Your task to perform on an android device: Show me productivity apps on the Play Store Image 0: 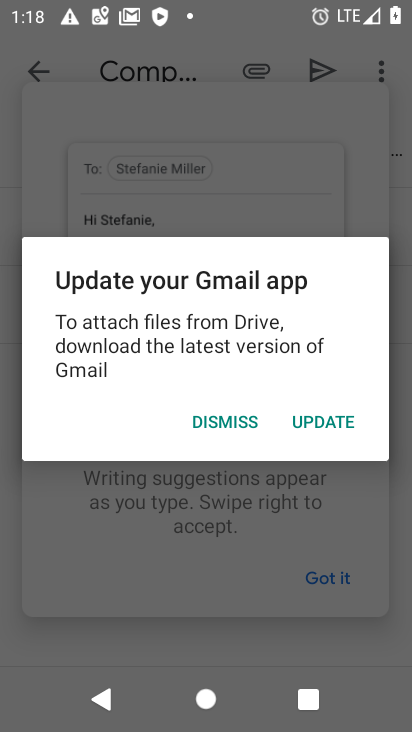
Step 0: press back button
Your task to perform on an android device: Show me productivity apps on the Play Store Image 1: 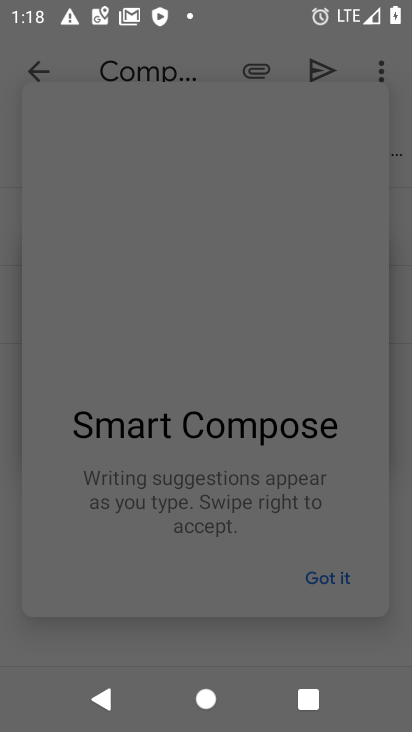
Step 1: press back button
Your task to perform on an android device: Show me productivity apps on the Play Store Image 2: 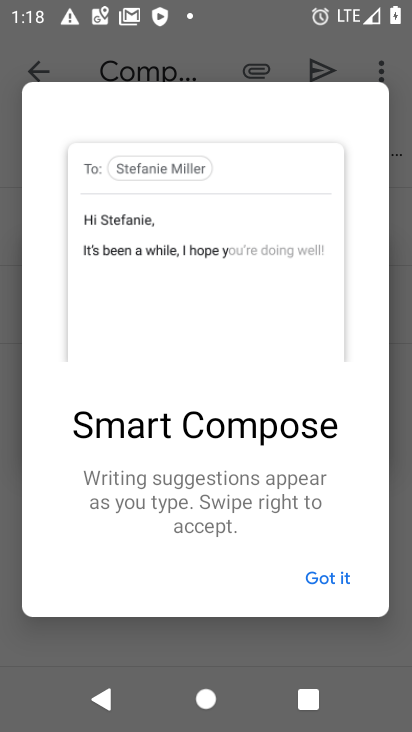
Step 2: press home button
Your task to perform on an android device: Show me productivity apps on the Play Store Image 3: 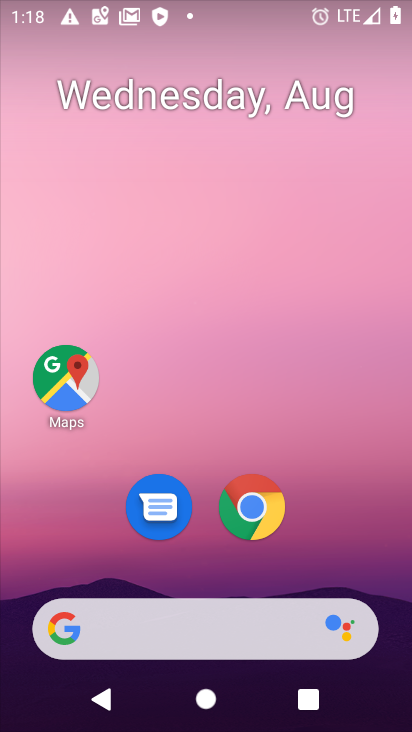
Step 3: drag from (176, 584) to (222, 35)
Your task to perform on an android device: Show me productivity apps on the Play Store Image 4: 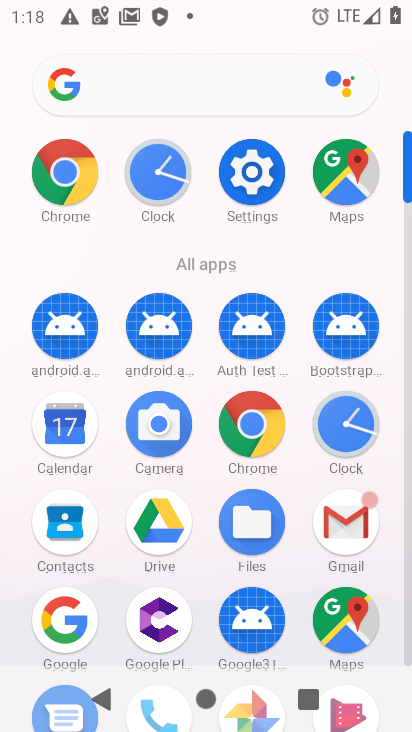
Step 4: drag from (196, 624) to (184, 13)
Your task to perform on an android device: Show me productivity apps on the Play Store Image 5: 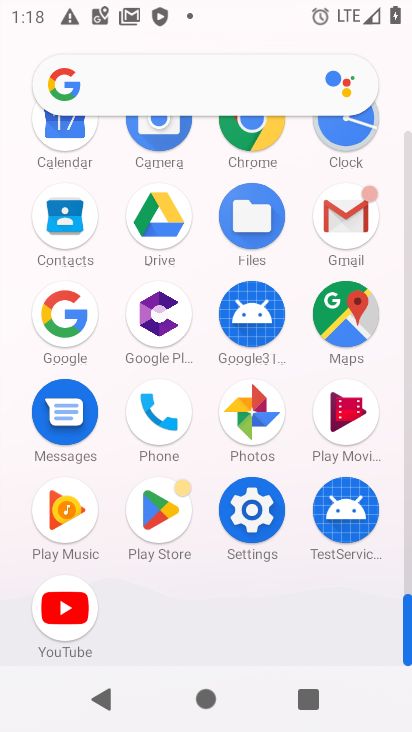
Step 5: click (167, 535)
Your task to perform on an android device: Show me productivity apps on the Play Store Image 6: 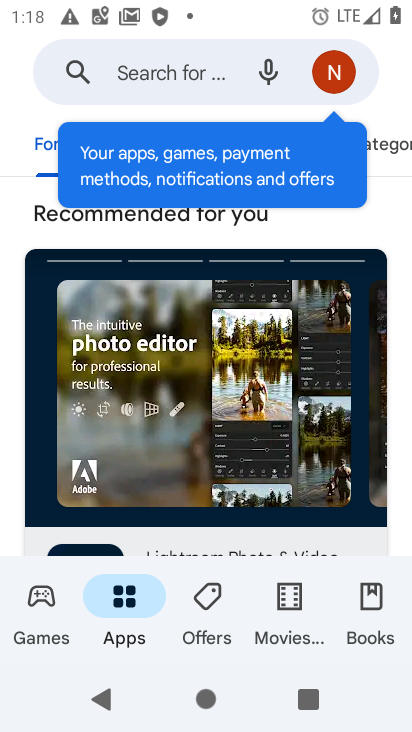
Step 6: click (154, 114)
Your task to perform on an android device: Show me productivity apps on the Play Store Image 7: 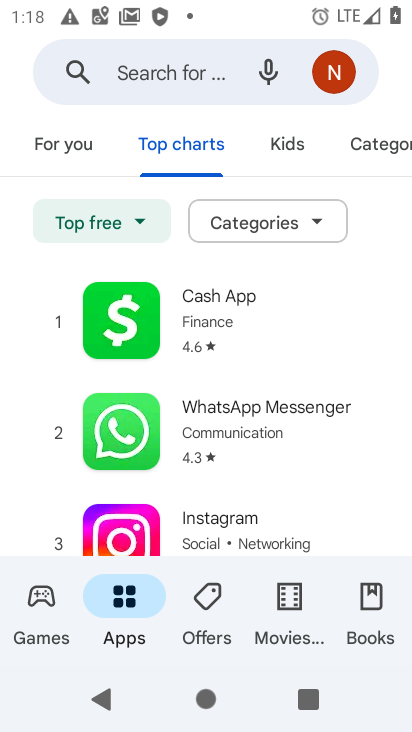
Step 7: click (382, 149)
Your task to perform on an android device: Show me productivity apps on the Play Store Image 8: 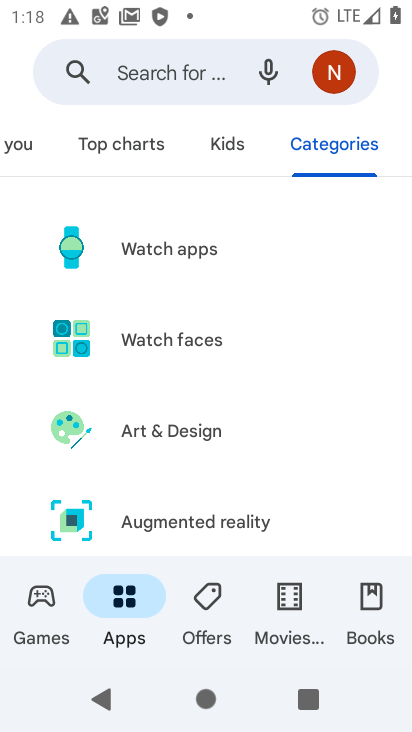
Step 8: drag from (312, 560) to (254, 36)
Your task to perform on an android device: Show me productivity apps on the Play Store Image 9: 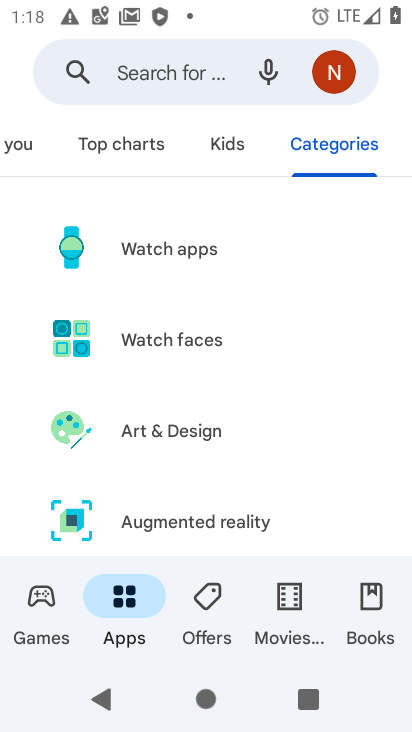
Step 9: drag from (192, 409) to (149, 35)
Your task to perform on an android device: Show me productivity apps on the Play Store Image 10: 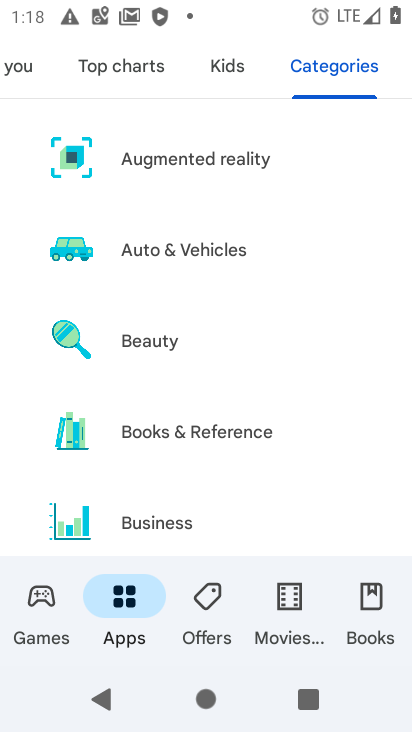
Step 10: drag from (129, 407) to (129, 18)
Your task to perform on an android device: Show me productivity apps on the Play Store Image 11: 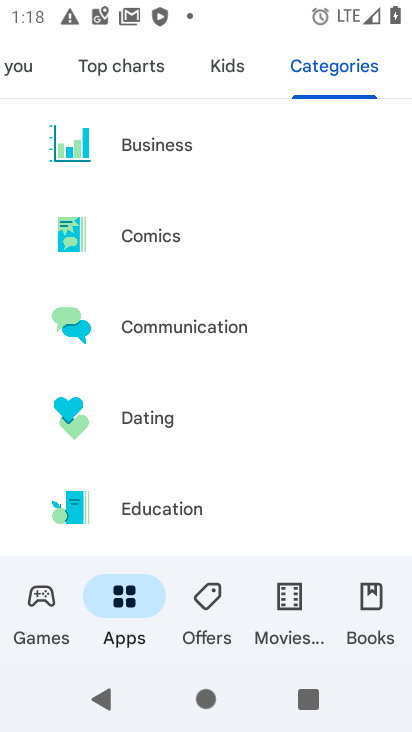
Step 11: drag from (163, 378) to (107, 24)
Your task to perform on an android device: Show me productivity apps on the Play Store Image 12: 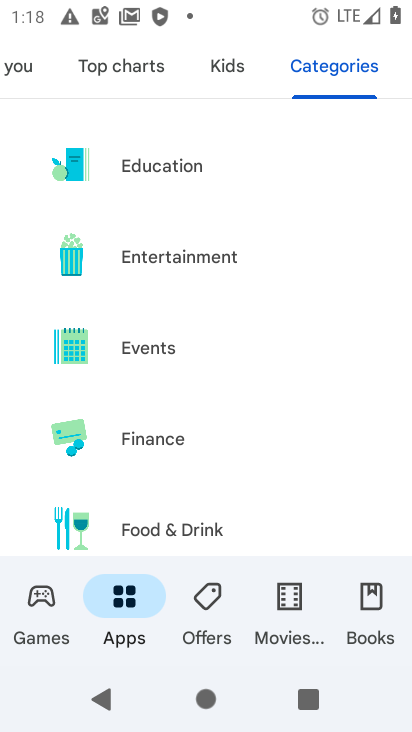
Step 12: drag from (105, 272) to (72, 14)
Your task to perform on an android device: Show me productivity apps on the Play Store Image 13: 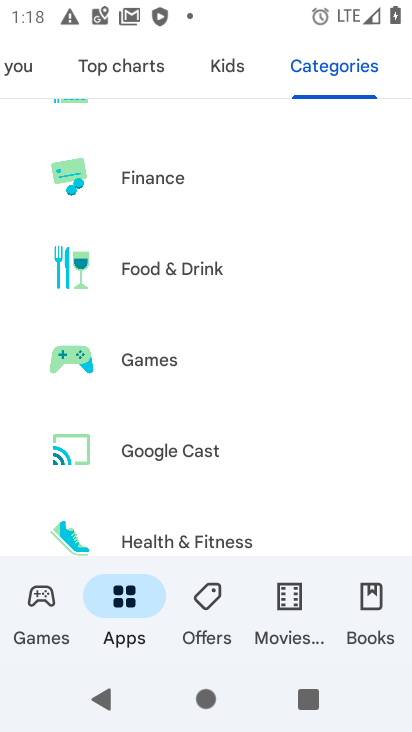
Step 13: drag from (97, 410) to (89, 33)
Your task to perform on an android device: Show me productivity apps on the Play Store Image 14: 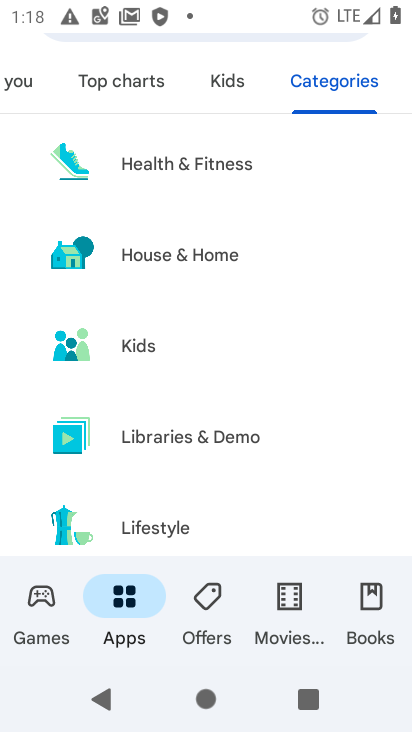
Step 14: drag from (111, 381) to (82, 0)
Your task to perform on an android device: Show me productivity apps on the Play Store Image 15: 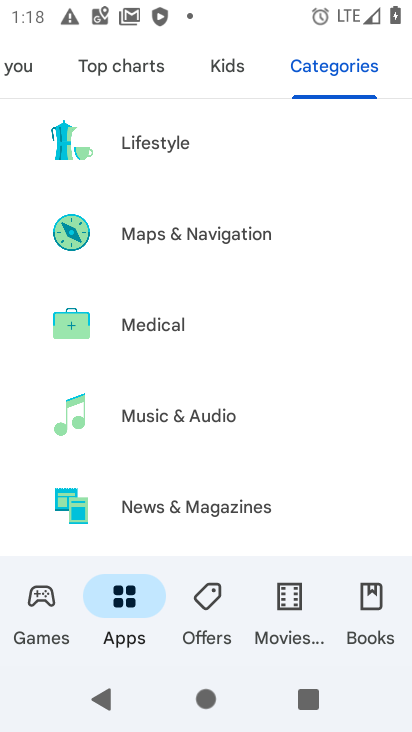
Step 15: drag from (122, 462) to (47, 0)
Your task to perform on an android device: Show me productivity apps on the Play Store Image 16: 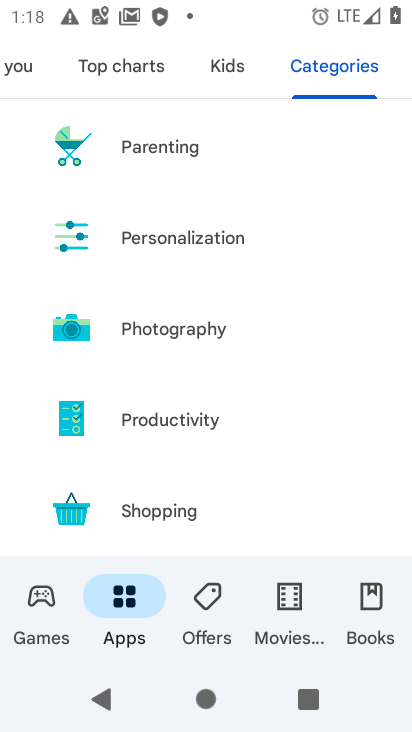
Step 16: drag from (159, 451) to (127, 257)
Your task to perform on an android device: Show me productivity apps on the Play Store Image 17: 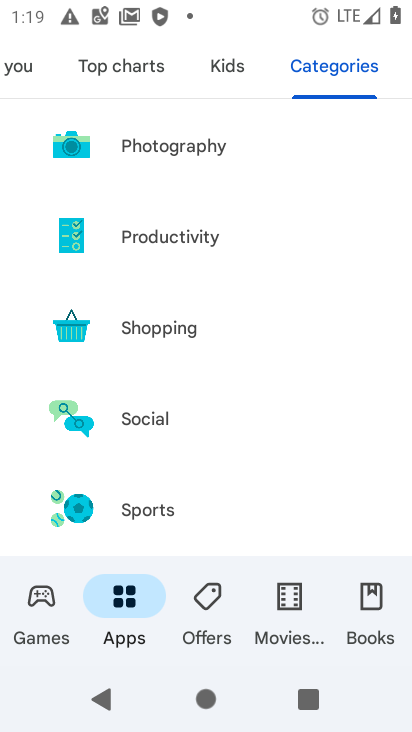
Step 17: click (129, 239)
Your task to perform on an android device: Show me productivity apps on the Play Store Image 18: 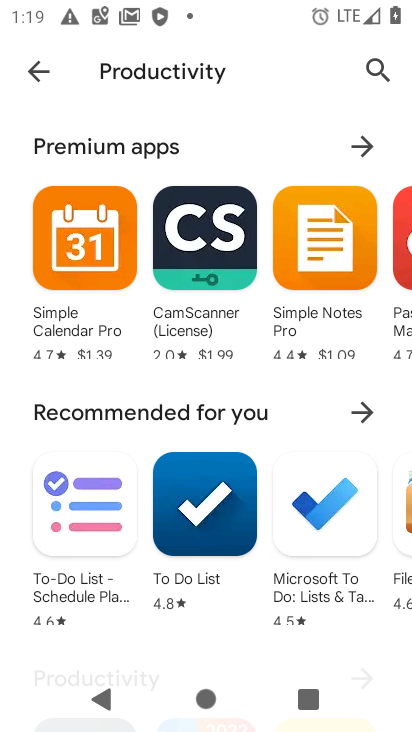
Step 18: task complete